Your task to perform on an android device: turn on data saver in the chrome app Image 0: 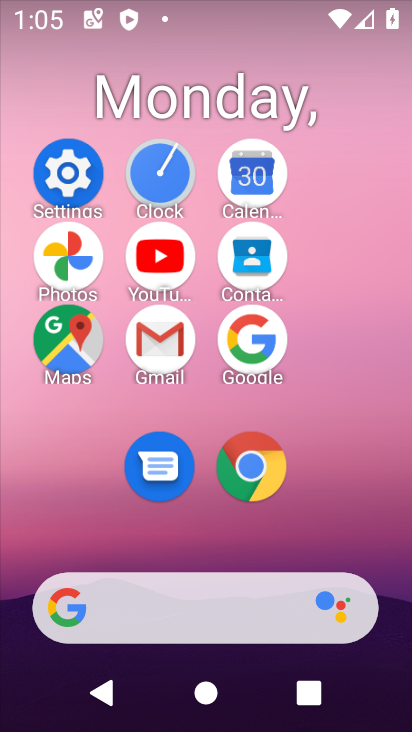
Step 0: click (283, 481)
Your task to perform on an android device: turn on data saver in the chrome app Image 1: 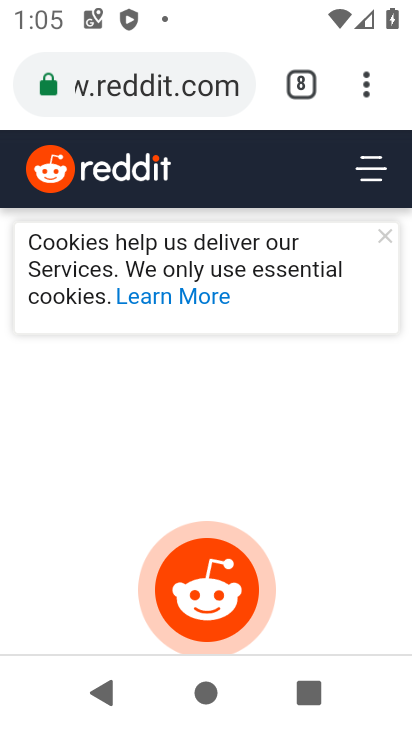
Step 1: click (373, 86)
Your task to perform on an android device: turn on data saver in the chrome app Image 2: 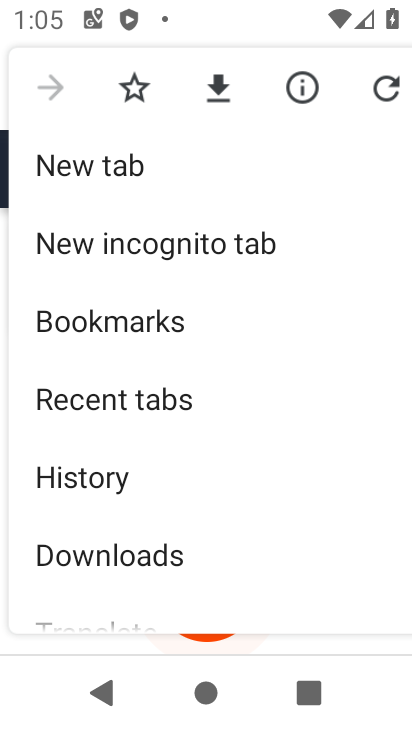
Step 2: drag from (205, 523) to (273, 28)
Your task to perform on an android device: turn on data saver in the chrome app Image 3: 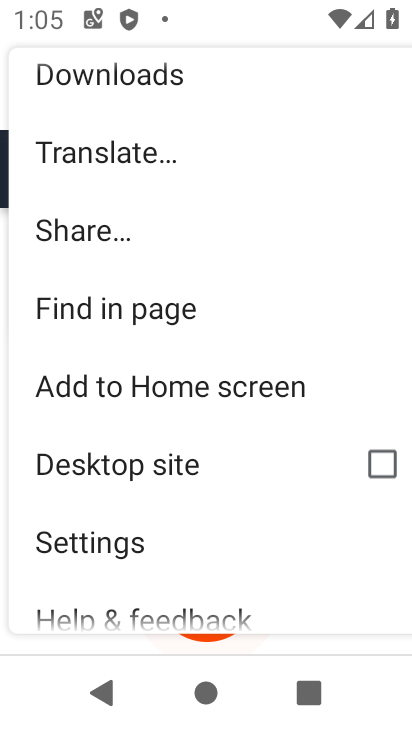
Step 3: click (175, 545)
Your task to perform on an android device: turn on data saver in the chrome app Image 4: 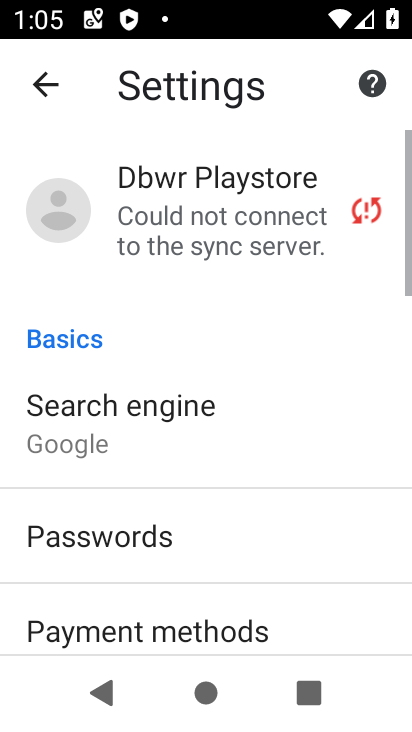
Step 4: drag from (175, 545) to (202, 140)
Your task to perform on an android device: turn on data saver in the chrome app Image 5: 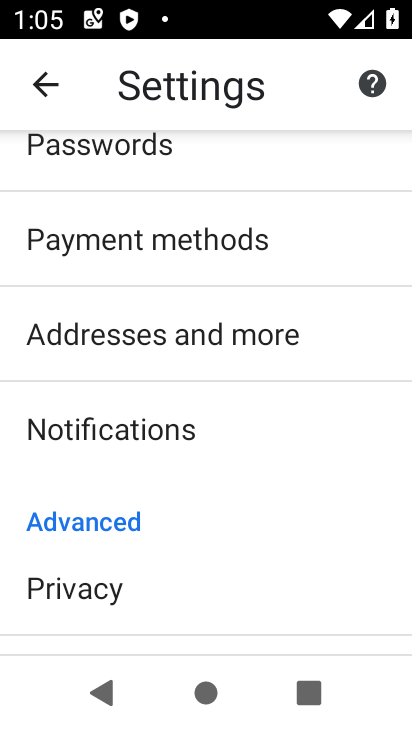
Step 5: drag from (183, 621) to (225, 157)
Your task to perform on an android device: turn on data saver in the chrome app Image 6: 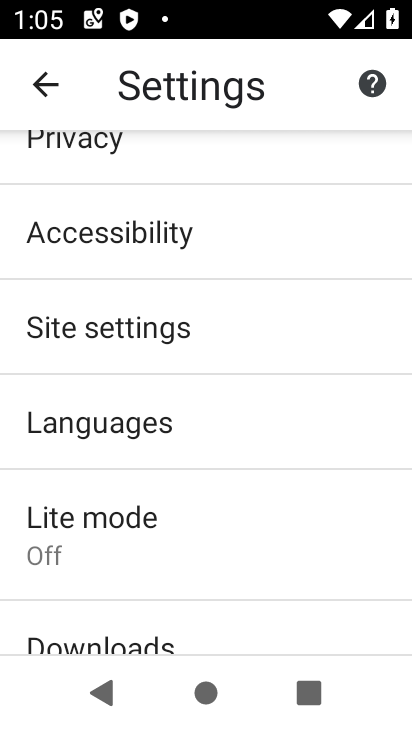
Step 6: drag from (222, 514) to (273, 190)
Your task to perform on an android device: turn on data saver in the chrome app Image 7: 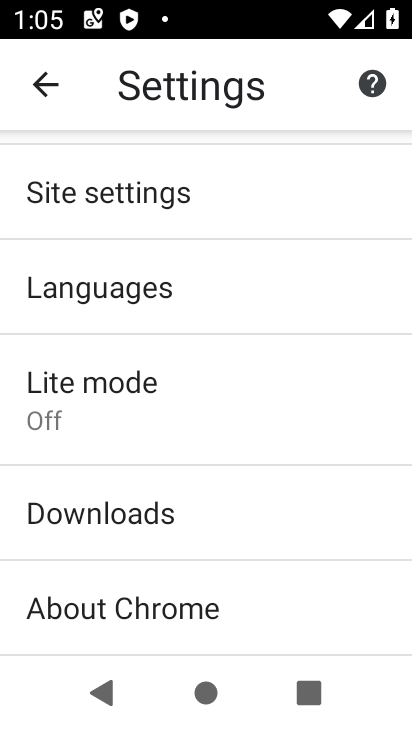
Step 7: click (215, 418)
Your task to perform on an android device: turn on data saver in the chrome app Image 8: 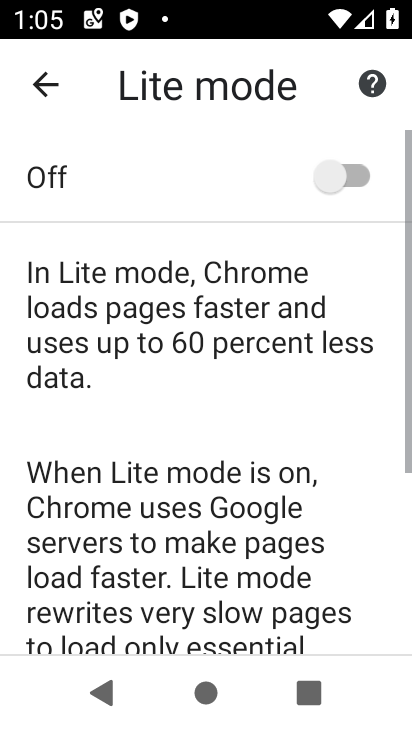
Step 8: click (349, 163)
Your task to perform on an android device: turn on data saver in the chrome app Image 9: 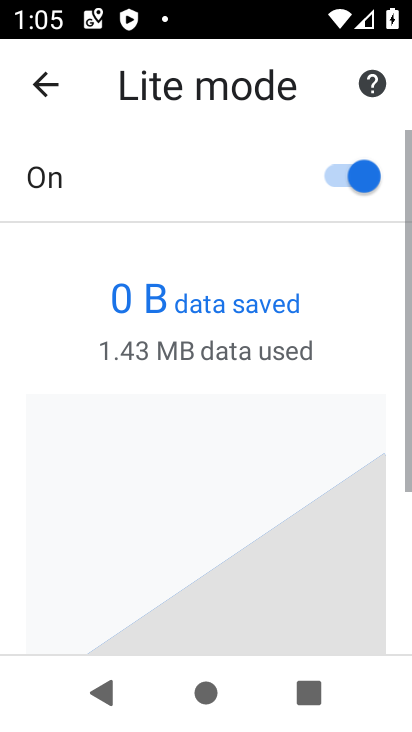
Step 9: task complete